Your task to perform on an android device: Show me recent news Image 0: 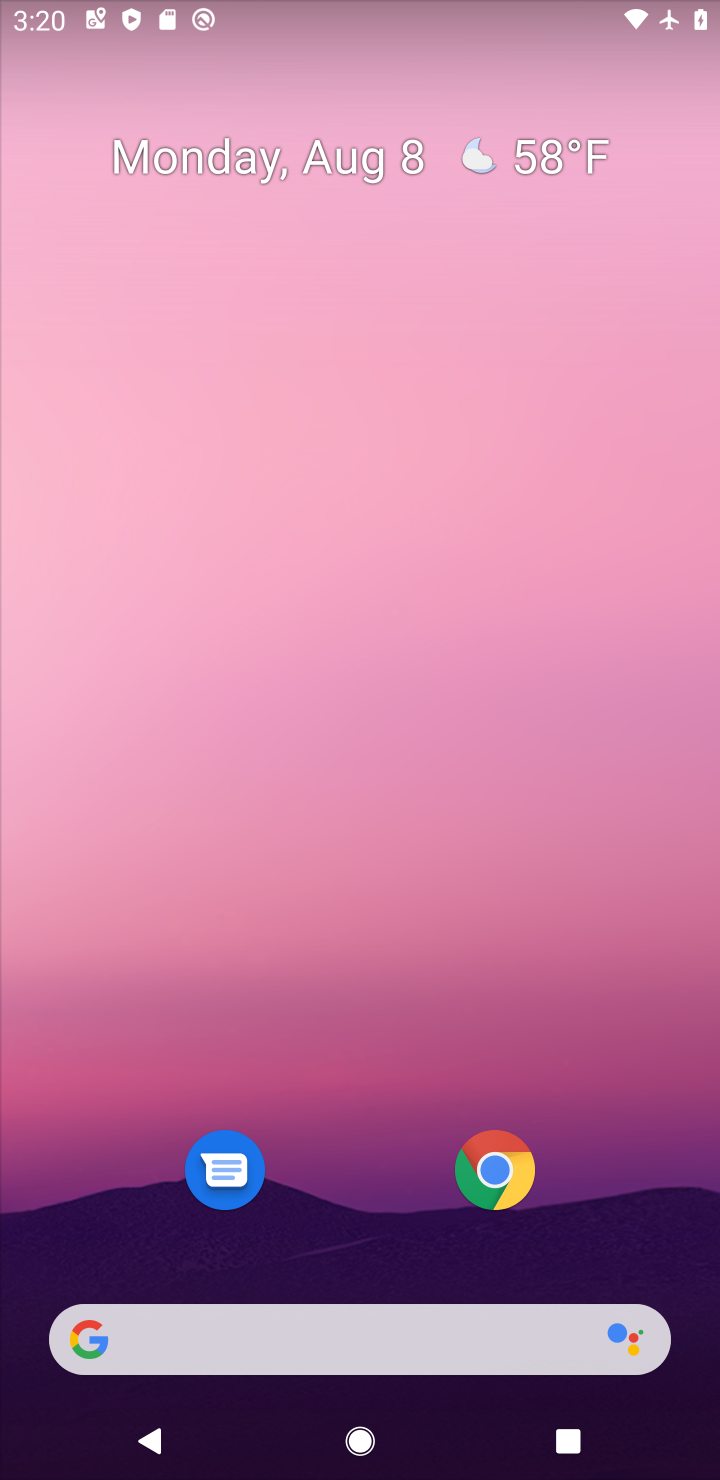
Step 0: drag from (357, 879) to (351, 487)
Your task to perform on an android device: Show me recent news Image 1: 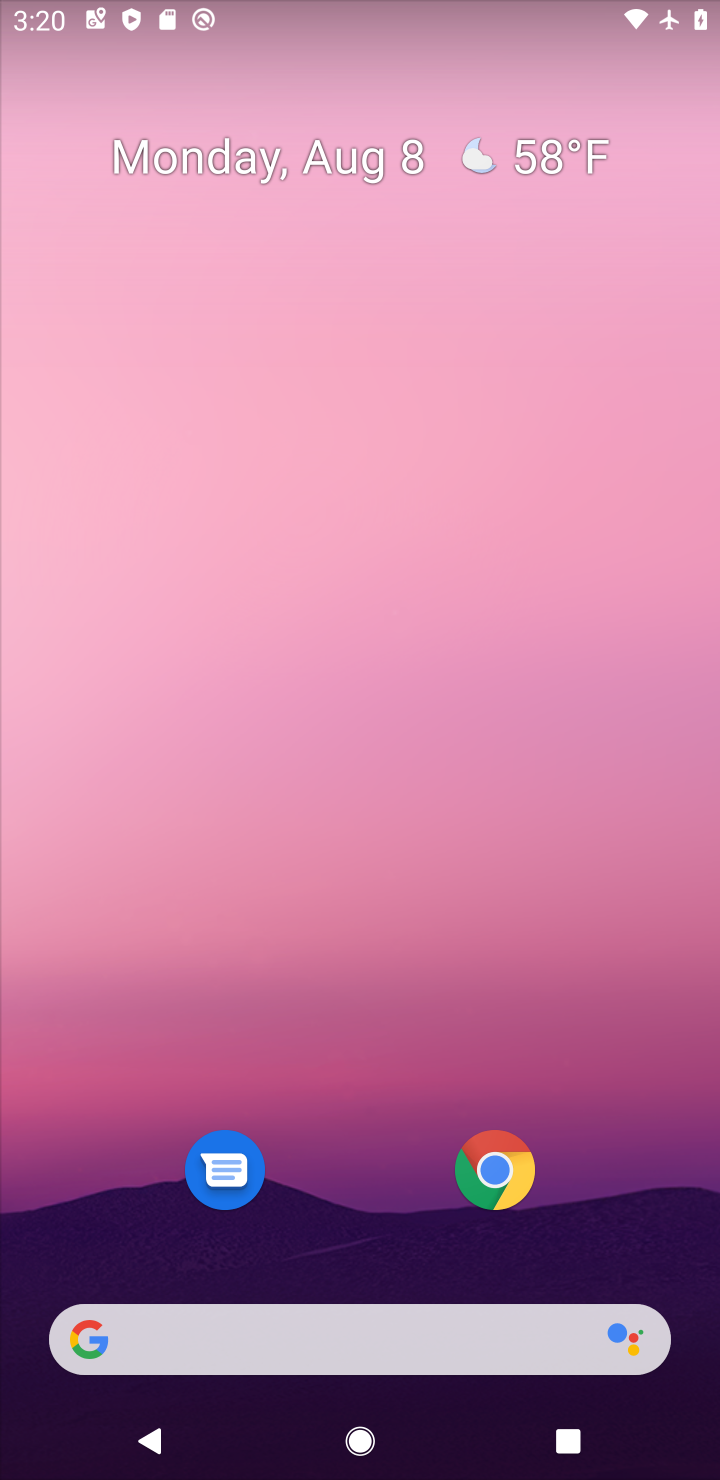
Step 1: drag from (312, 1137) to (343, 478)
Your task to perform on an android device: Show me recent news Image 2: 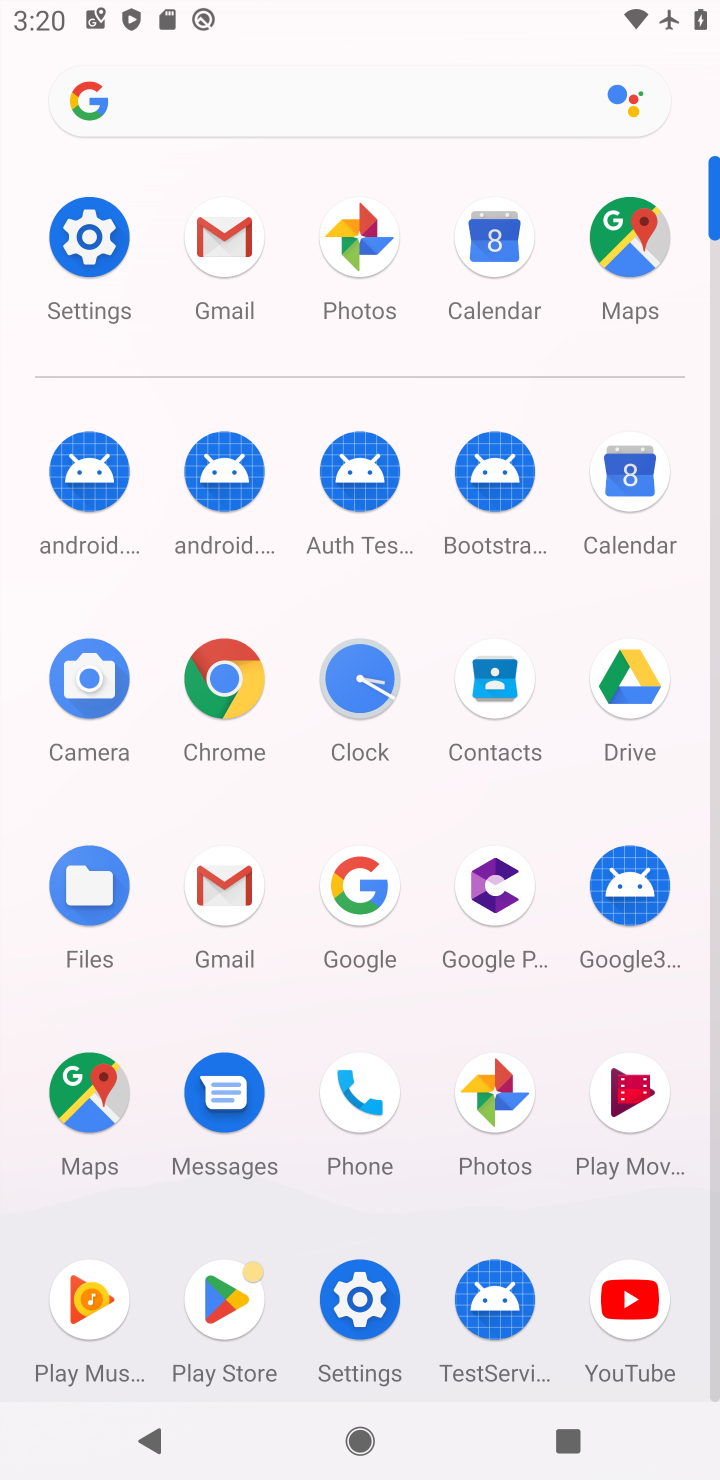
Step 2: click (339, 890)
Your task to perform on an android device: Show me recent news Image 3: 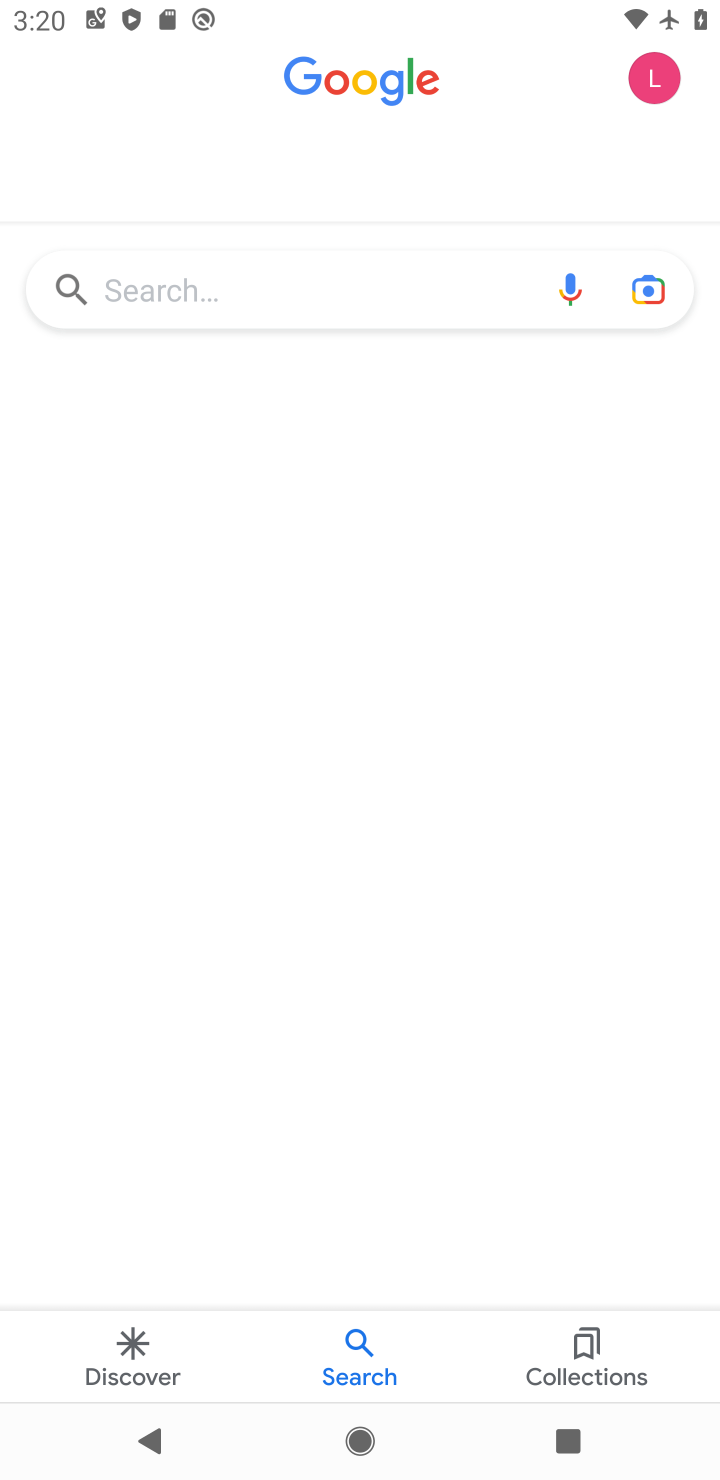
Step 3: click (250, 293)
Your task to perform on an android device: Show me recent news Image 4: 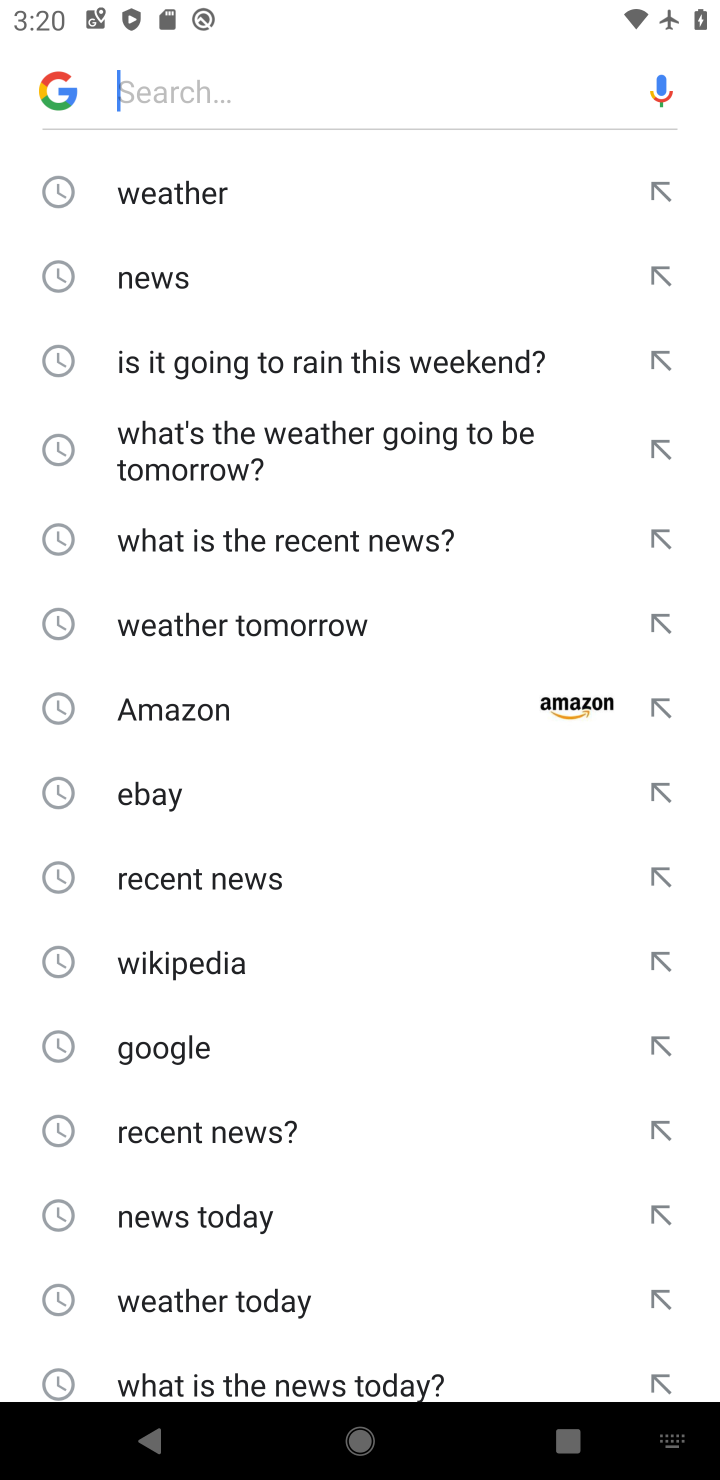
Step 4: click (172, 289)
Your task to perform on an android device: Show me recent news Image 5: 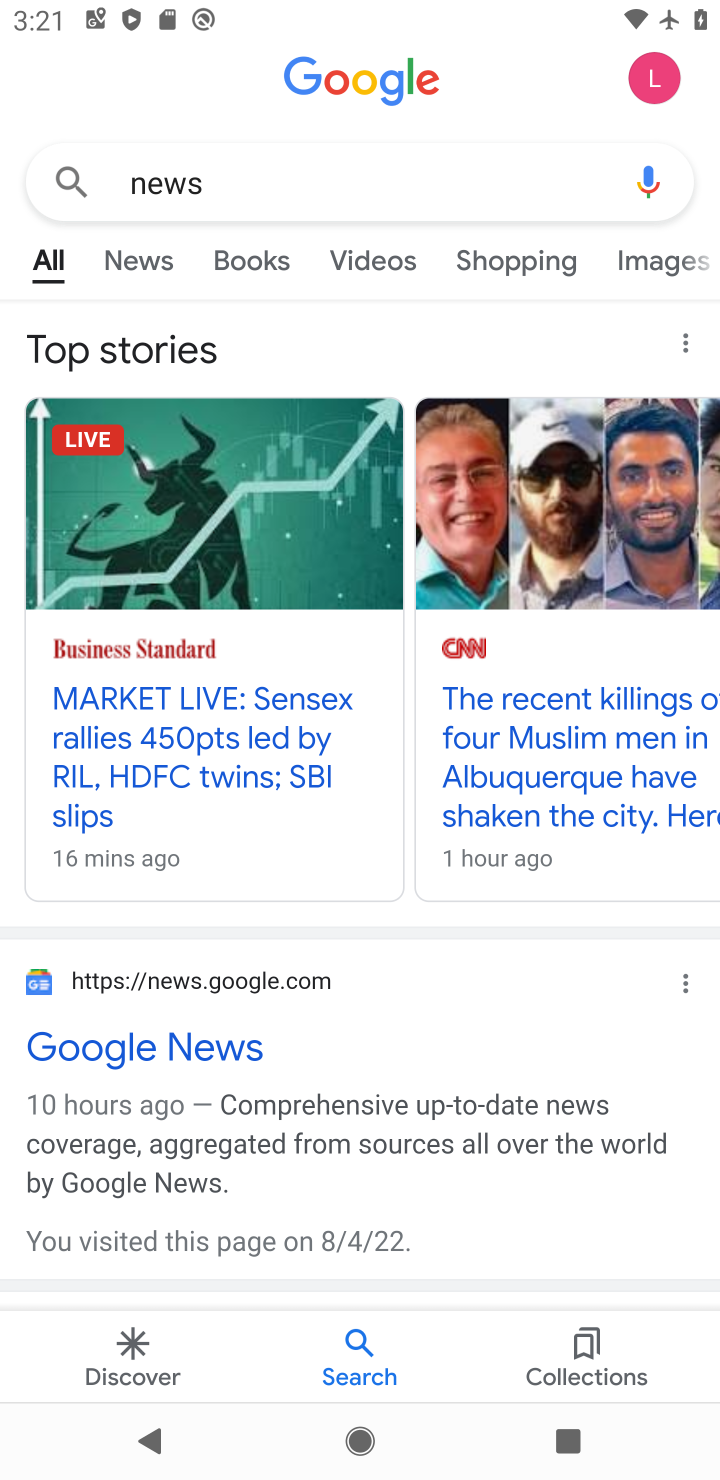
Step 5: click (158, 269)
Your task to perform on an android device: Show me recent news Image 6: 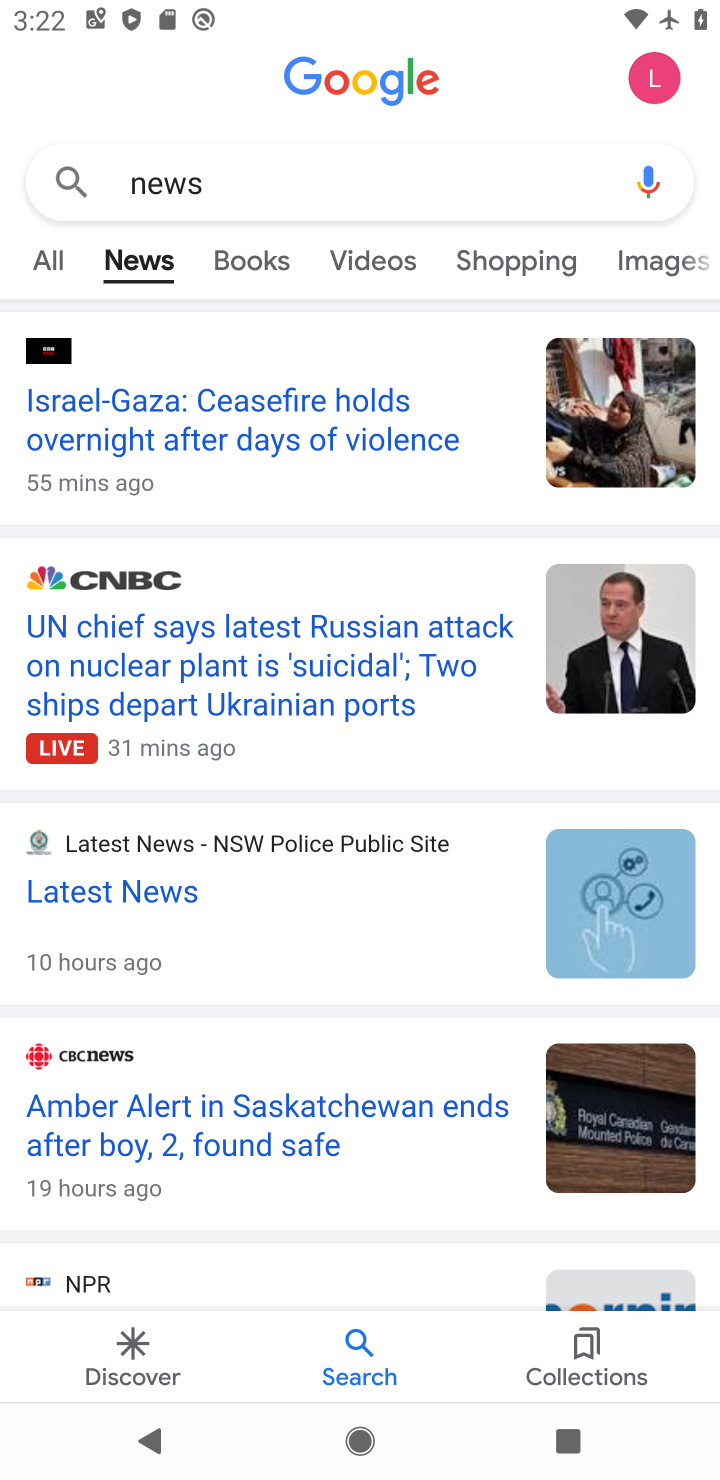
Step 6: task complete